Your task to perform on an android device: turn on javascript in the chrome app Image 0: 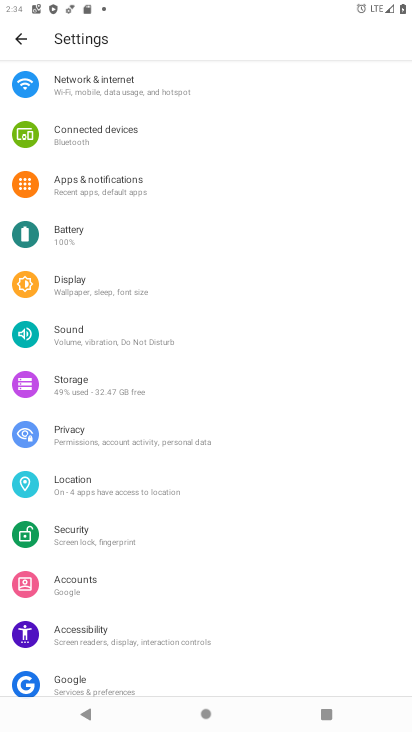
Step 0: press home button
Your task to perform on an android device: turn on javascript in the chrome app Image 1: 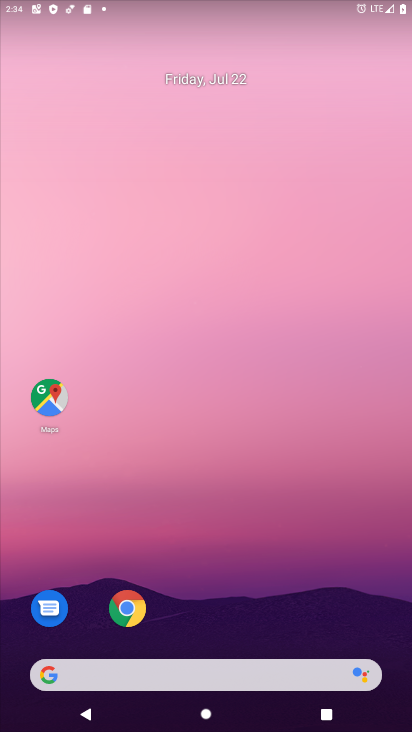
Step 1: click (122, 604)
Your task to perform on an android device: turn on javascript in the chrome app Image 2: 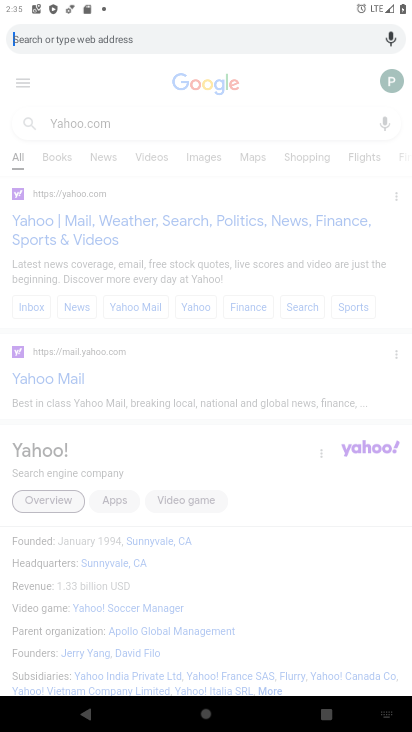
Step 2: press back button
Your task to perform on an android device: turn on javascript in the chrome app Image 3: 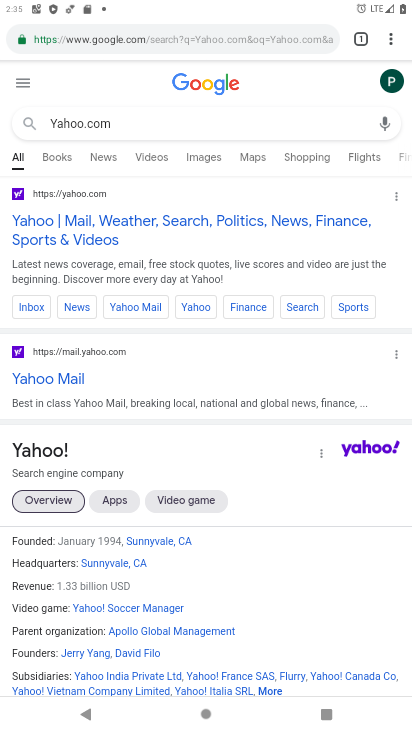
Step 3: click (391, 41)
Your task to perform on an android device: turn on javascript in the chrome app Image 4: 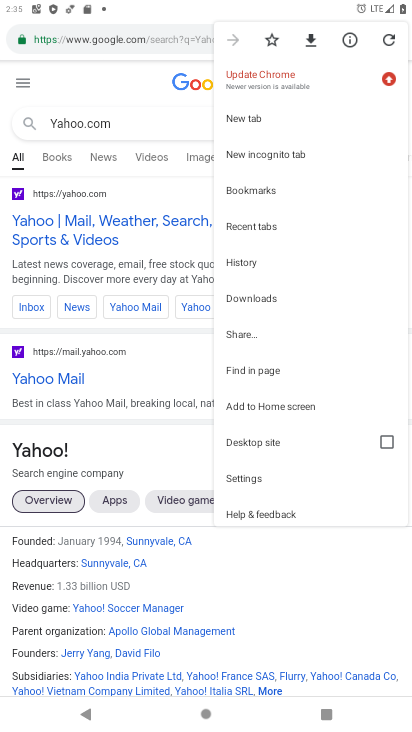
Step 4: click (234, 475)
Your task to perform on an android device: turn on javascript in the chrome app Image 5: 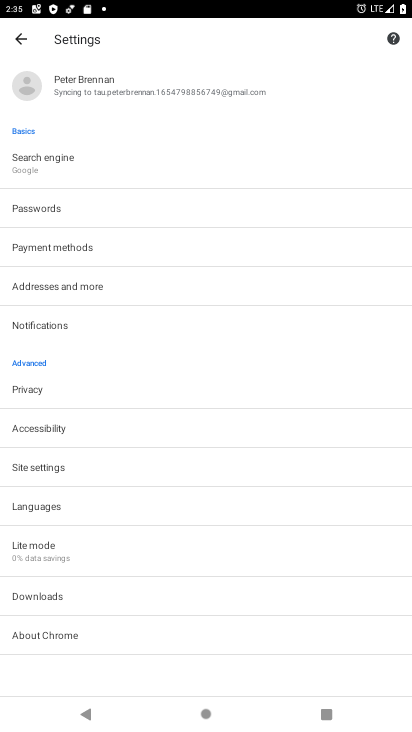
Step 5: drag from (161, 642) to (176, 328)
Your task to perform on an android device: turn on javascript in the chrome app Image 6: 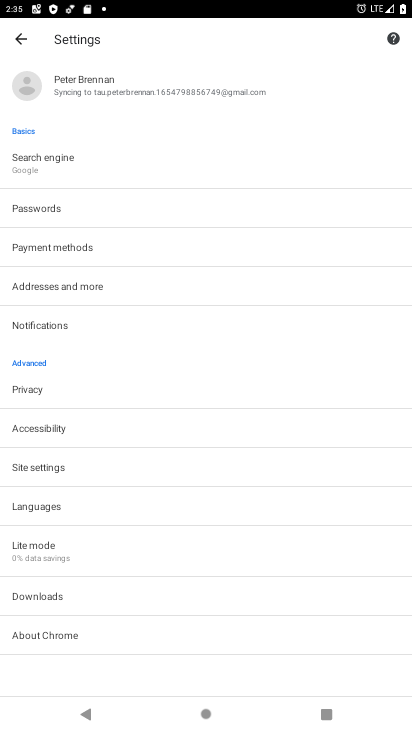
Step 6: click (21, 462)
Your task to perform on an android device: turn on javascript in the chrome app Image 7: 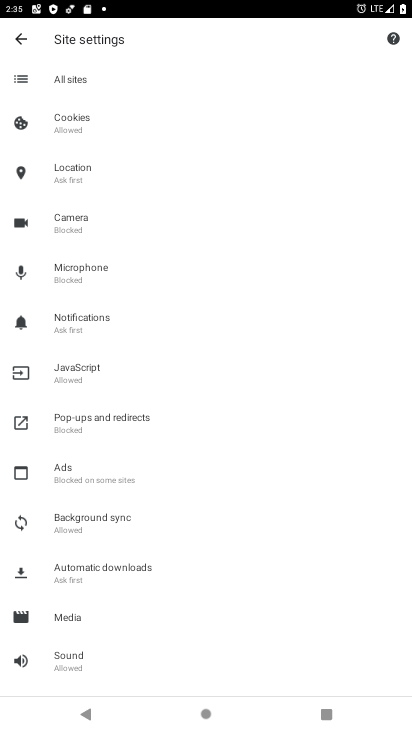
Step 7: click (80, 358)
Your task to perform on an android device: turn on javascript in the chrome app Image 8: 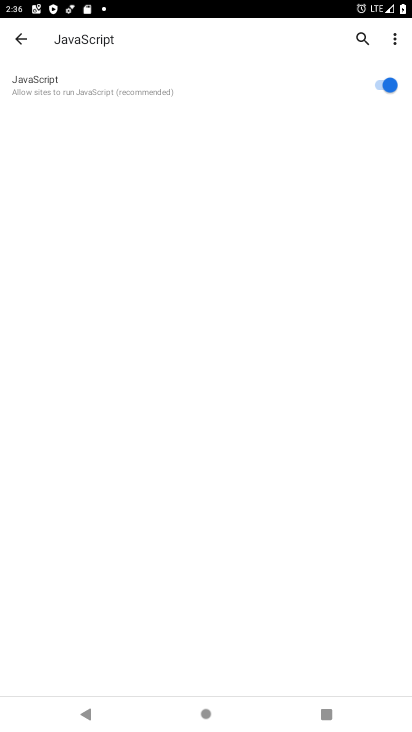
Step 8: task complete